Your task to perform on an android device: toggle notification dots Image 0: 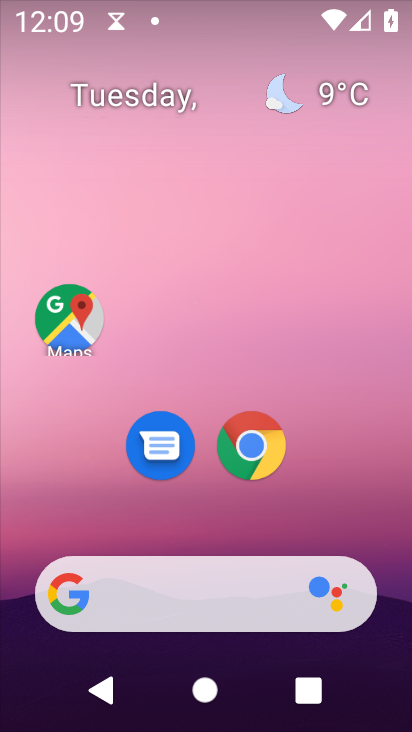
Step 0: drag from (293, 592) to (225, 18)
Your task to perform on an android device: toggle notification dots Image 1: 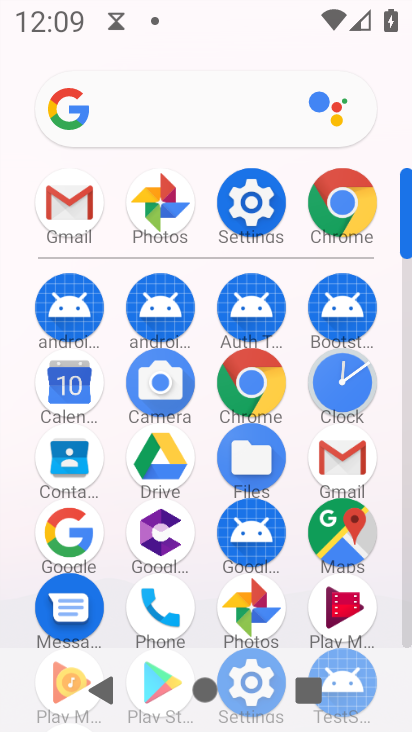
Step 1: click (237, 204)
Your task to perform on an android device: toggle notification dots Image 2: 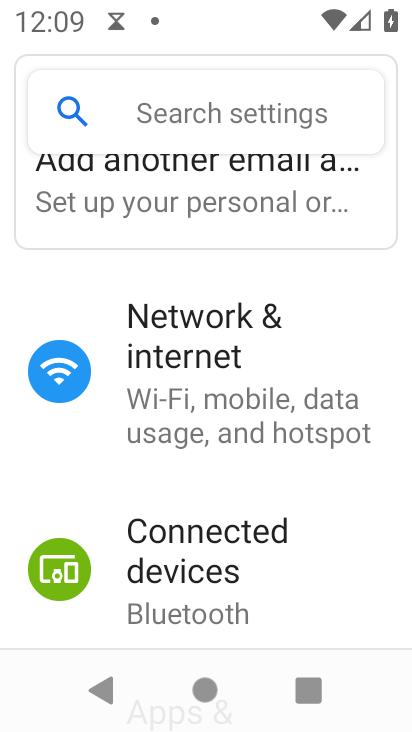
Step 2: drag from (274, 570) to (304, 183)
Your task to perform on an android device: toggle notification dots Image 3: 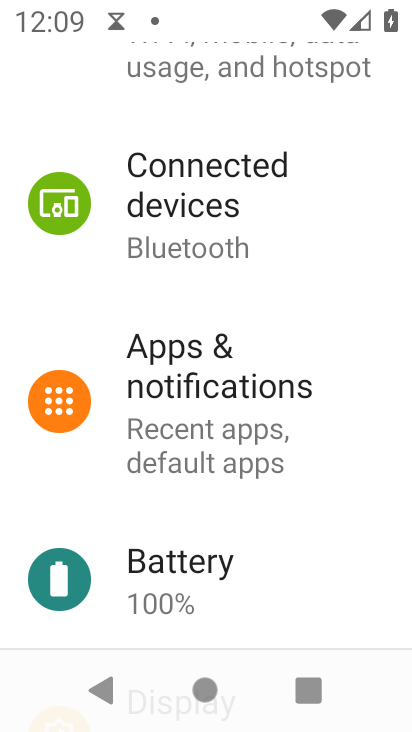
Step 3: drag from (271, 617) to (281, 444)
Your task to perform on an android device: toggle notification dots Image 4: 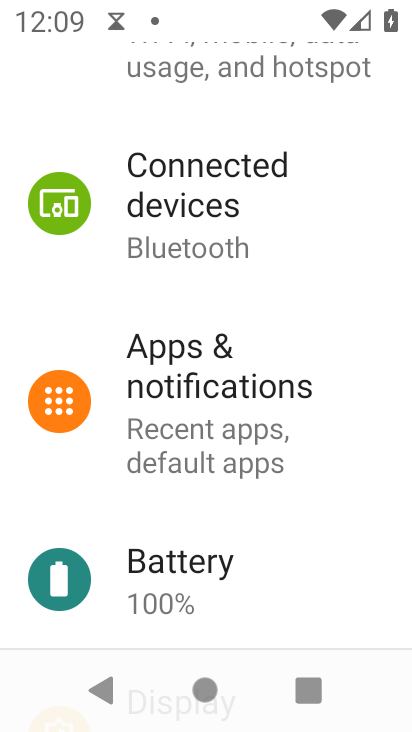
Step 4: click (283, 397)
Your task to perform on an android device: toggle notification dots Image 5: 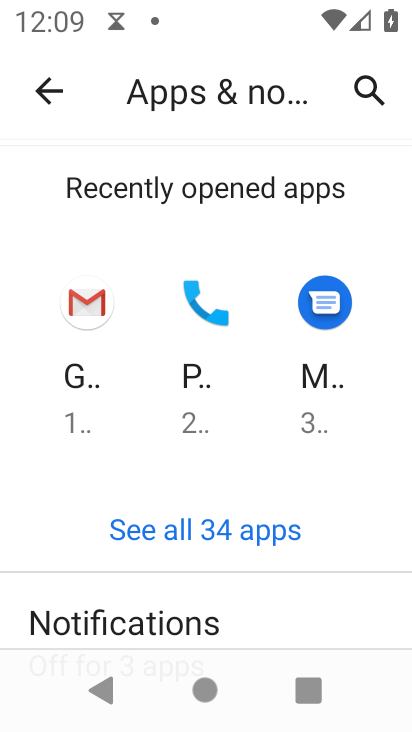
Step 5: drag from (294, 615) to (298, 102)
Your task to perform on an android device: toggle notification dots Image 6: 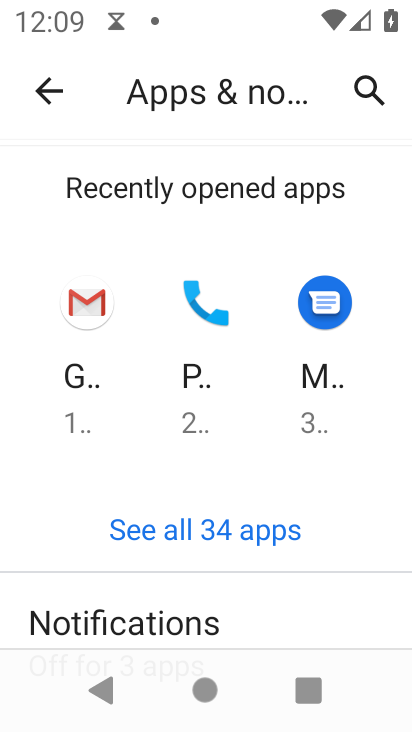
Step 6: drag from (225, 627) to (254, 97)
Your task to perform on an android device: toggle notification dots Image 7: 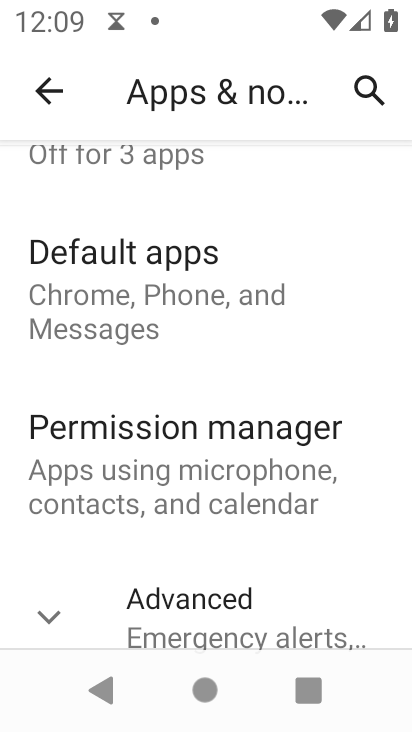
Step 7: click (274, 607)
Your task to perform on an android device: toggle notification dots Image 8: 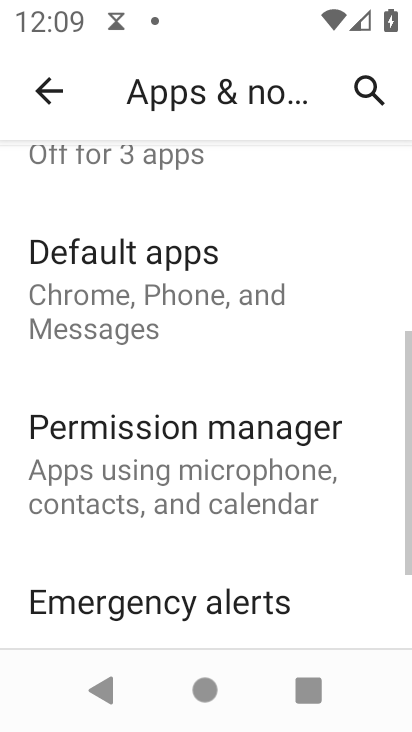
Step 8: drag from (276, 644) to (282, 251)
Your task to perform on an android device: toggle notification dots Image 9: 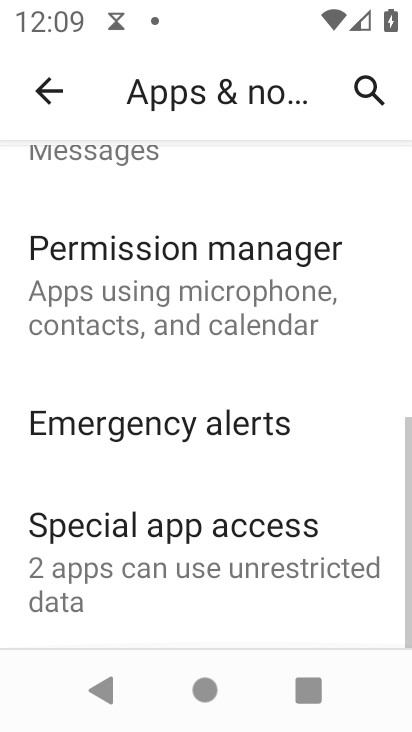
Step 9: drag from (280, 241) to (347, 678)
Your task to perform on an android device: toggle notification dots Image 10: 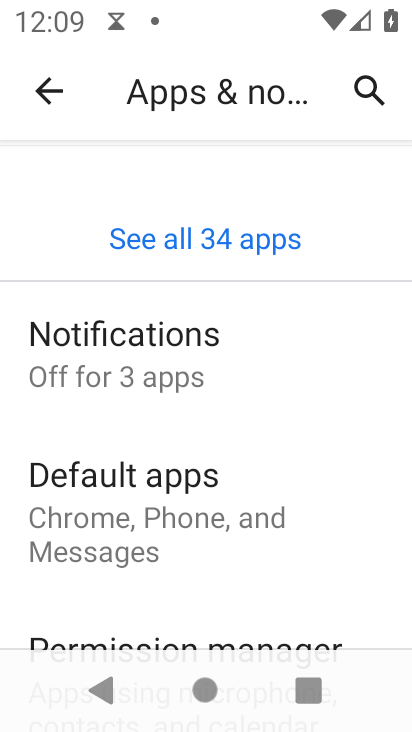
Step 10: click (266, 396)
Your task to perform on an android device: toggle notification dots Image 11: 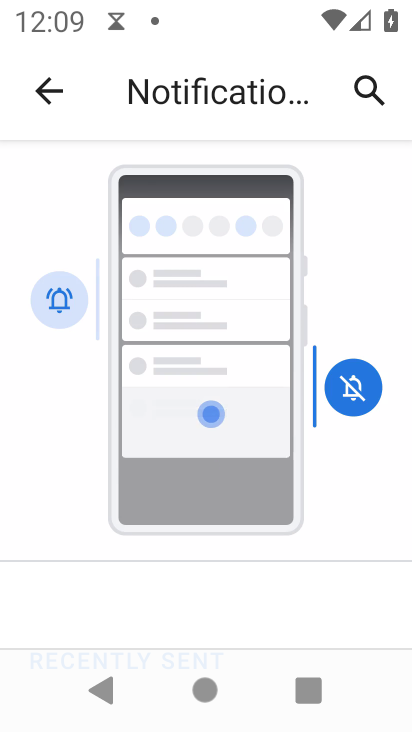
Step 11: drag from (276, 608) to (282, 191)
Your task to perform on an android device: toggle notification dots Image 12: 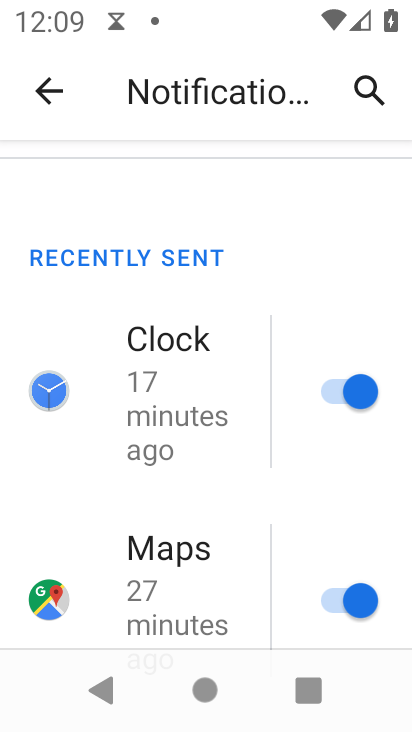
Step 12: drag from (256, 627) to (274, 233)
Your task to perform on an android device: toggle notification dots Image 13: 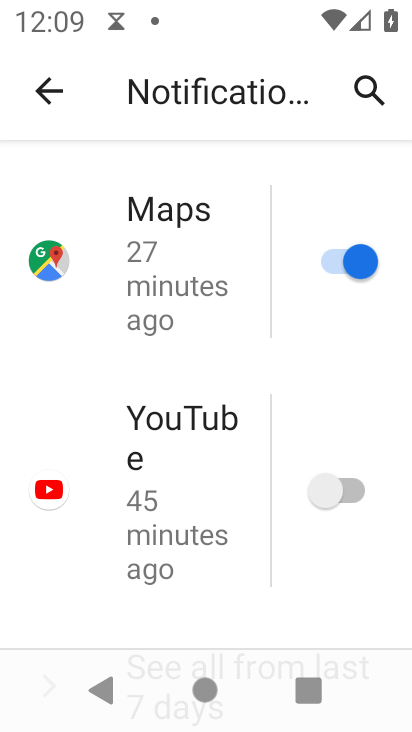
Step 13: drag from (293, 572) to (280, 247)
Your task to perform on an android device: toggle notification dots Image 14: 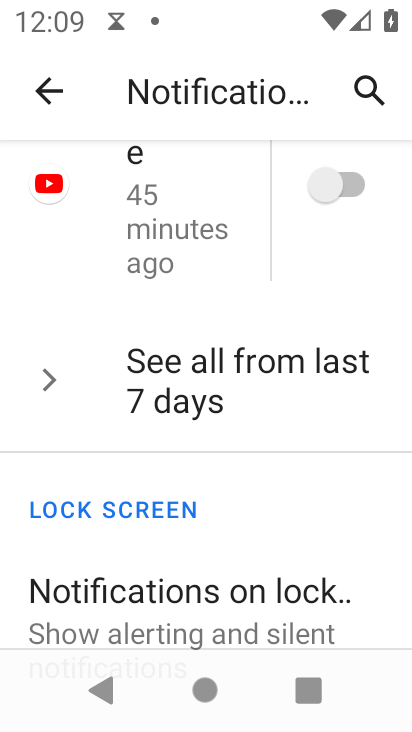
Step 14: drag from (299, 638) to (309, 260)
Your task to perform on an android device: toggle notification dots Image 15: 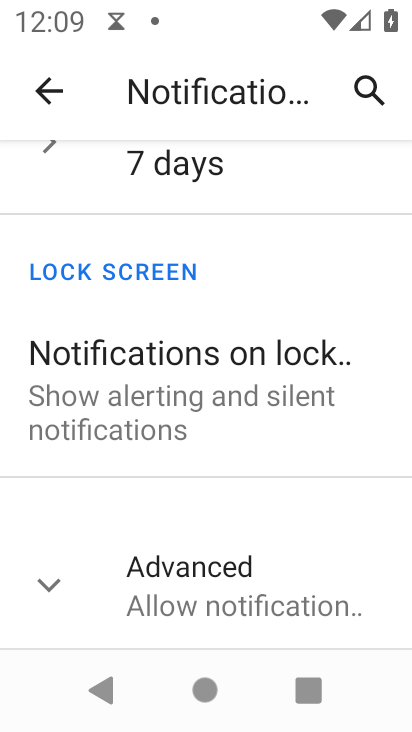
Step 15: click (262, 592)
Your task to perform on an android device: toggle notification dots Image 16: 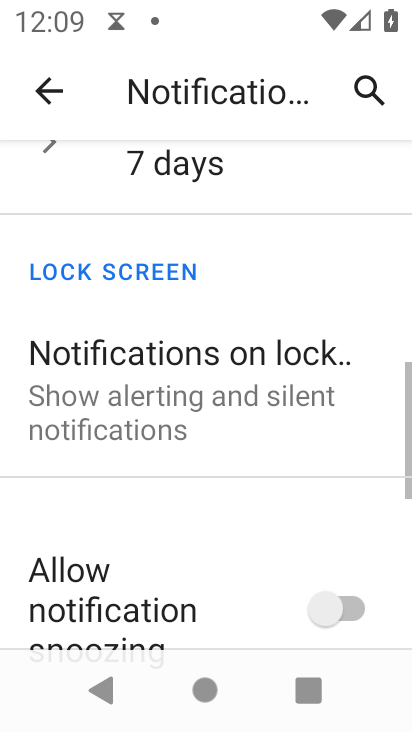
Step 16: drag from (262, 592) to (256, 168)
Your task to perform on an android device: toggle notification dots Image 17: 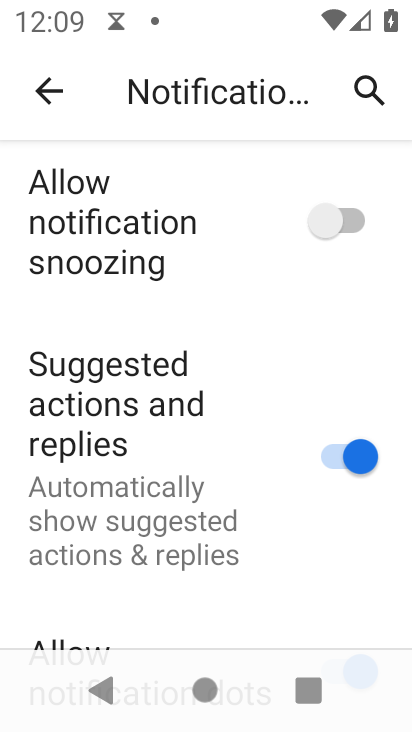
Step 17: drag from (260, 566) to (263, 135)
Your task to perform on an android device: toggle notification dots Image 18: 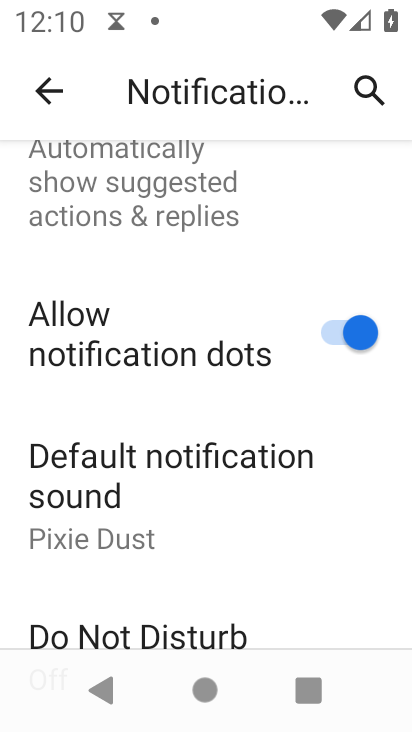
Step 18: click (336, 338)
Your task to perform on an android device: toggle notification dots Image 19: 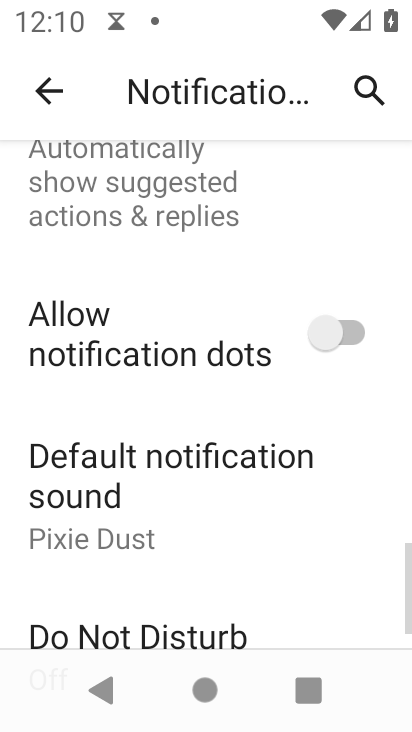
Step 19: task complete